Your task to perform on an android device: What's on my calendar today? Image 0: 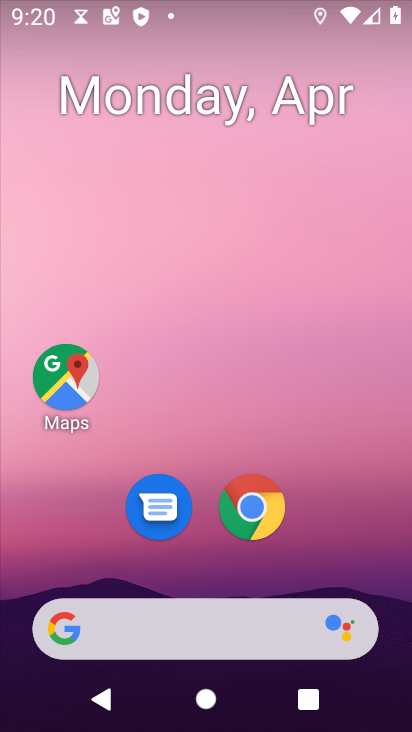
Step 0: drag from (316, 568) to (341, 4)
Your task to perform on an android device: What's on my calendar today? Image 1: 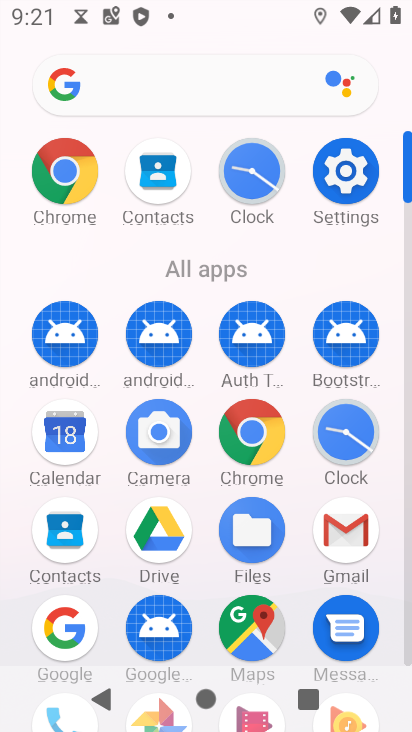
Step 1: click (74, 437)
Your task to perform on an android device: What's on my calendar today? Image 2: 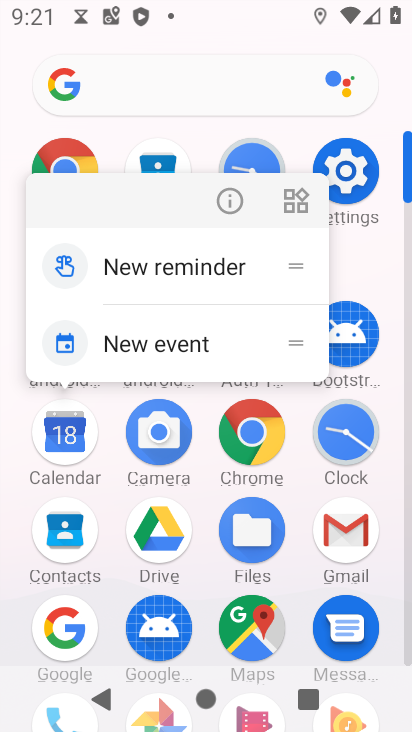
Step 2: click (71, 421)
Your task to perform on an android device: What's on my calendar today? Image 3: 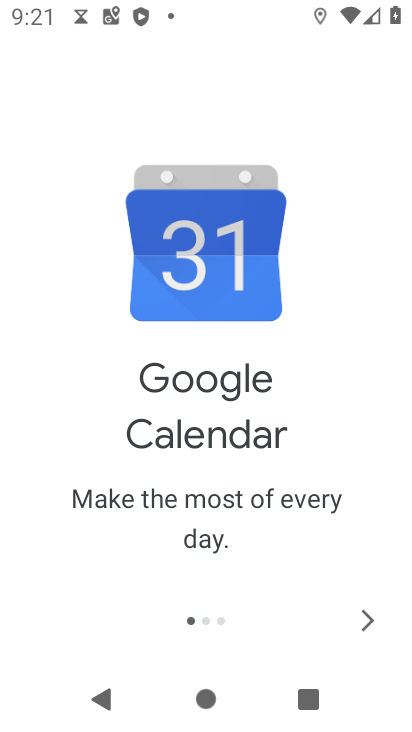
Step 3: click (364, 616)
Your task to perform on an android device: What's on my calendar today? Image 4: 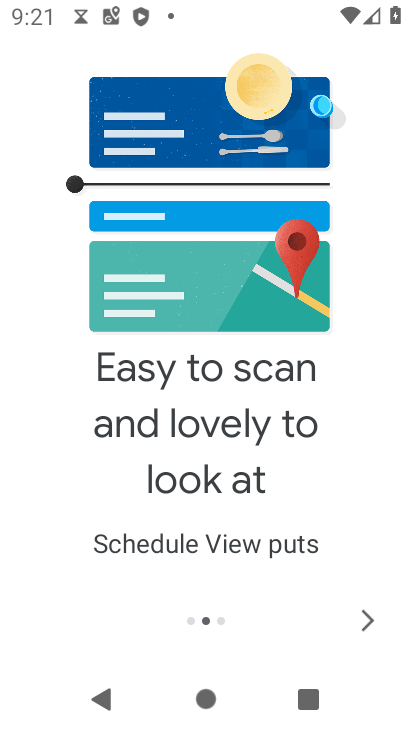
Step 4: click (364, 615)
Your task to perform on an android device: What's on my calendar today? Image 5: 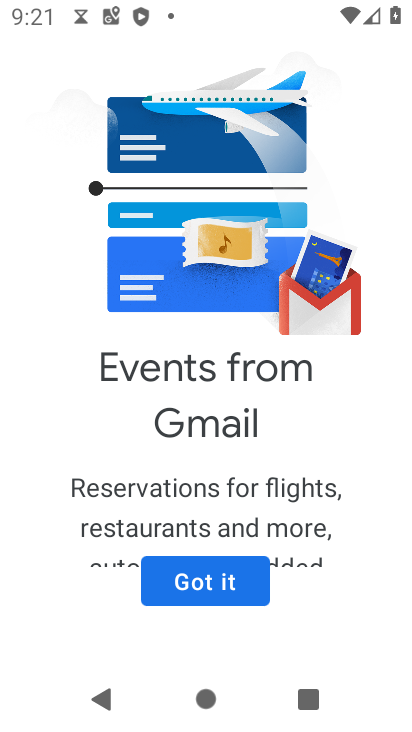
Step 5: click (256, 581)
Your task to perform on an android device: What's on my calendar today? Image 6: 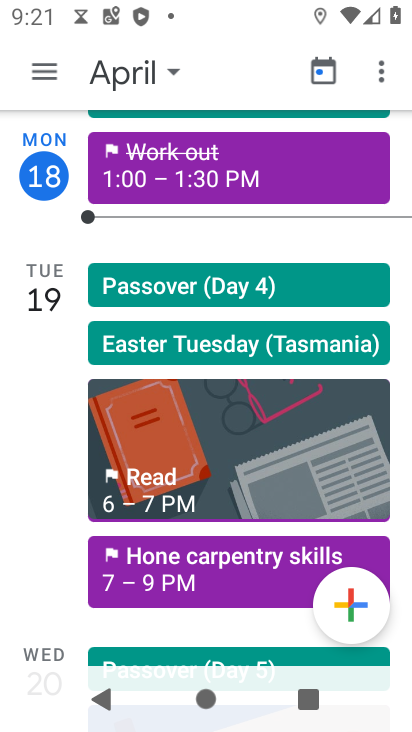
Step 6: click (180, 74)
Your task to perform on an android device: What's on my calendar today? Image 7: 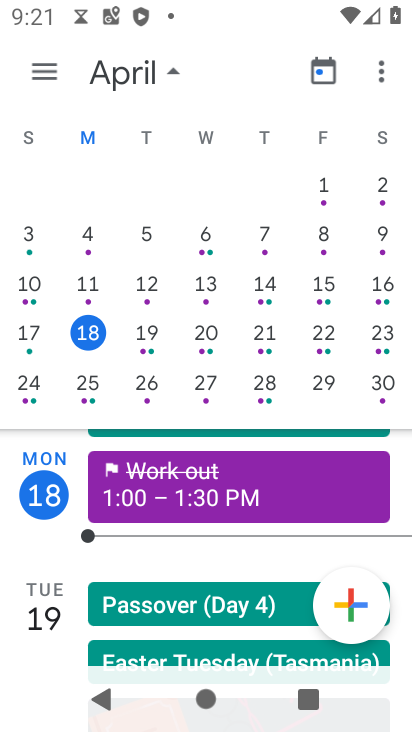
Step 7: click (144, 346)
Your task to perform on an android device: What's on my calendar today? Image 8: 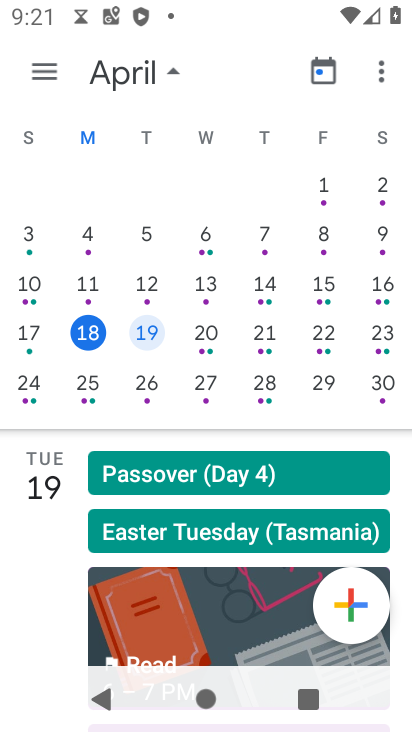
Step 8: task complete